Your task to perform on an android device: Go to Android settings Image 0: 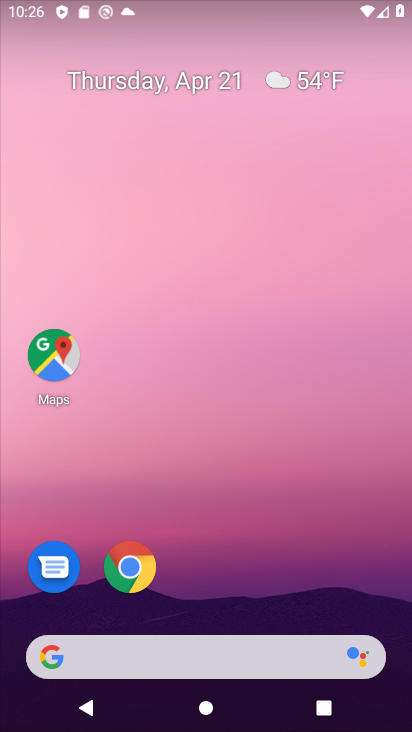
Step 0: drag from (247, 541) to (244, 26)
Your task to perform on an android device: Go to Android settings Image 1: 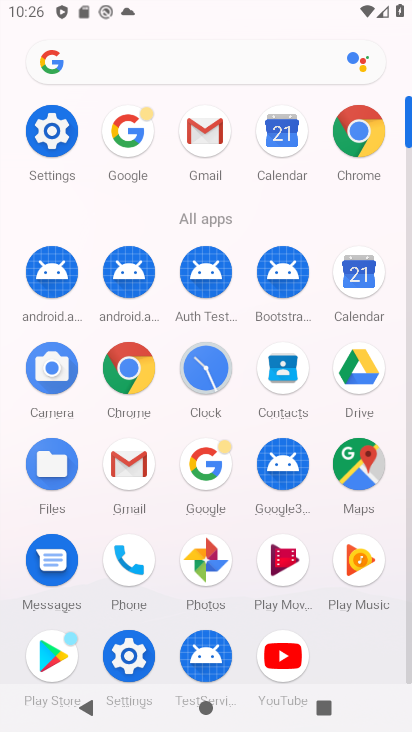
Step 1: click (54, 133)
Your task to perform on an android device: Go to Android settings Image 2: 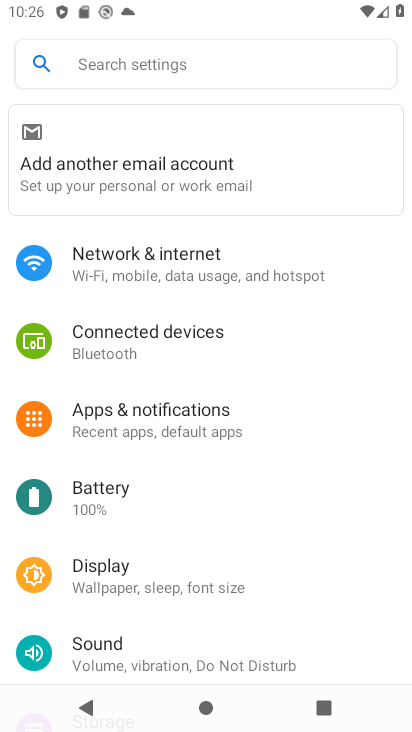
Step 2: task complete